Your task to perform on an android device: delete the emails in spam in the gmail app Image 0: 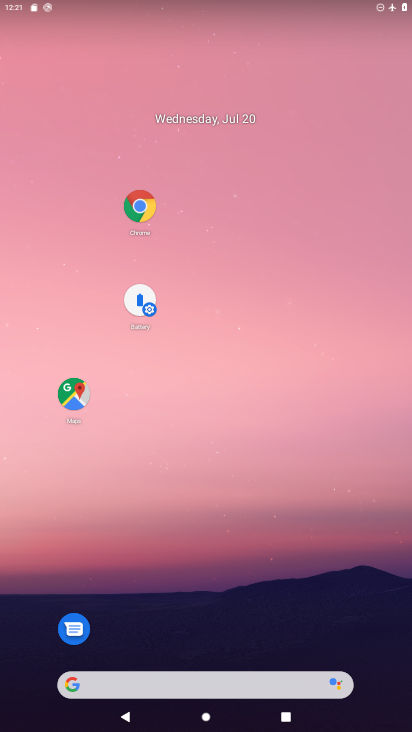
Step 0: drag from (225, 643) to (251, 144)
Your task to perform on an android device: delete the emails in spam in the gmail app Image 1: 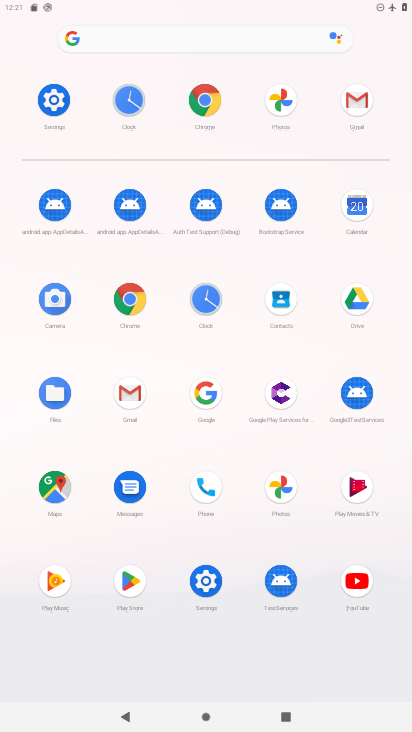
Step 1: click (137, 385)
Your task to perform on an android device: delete the emails in spam in the gmail app Image 2: 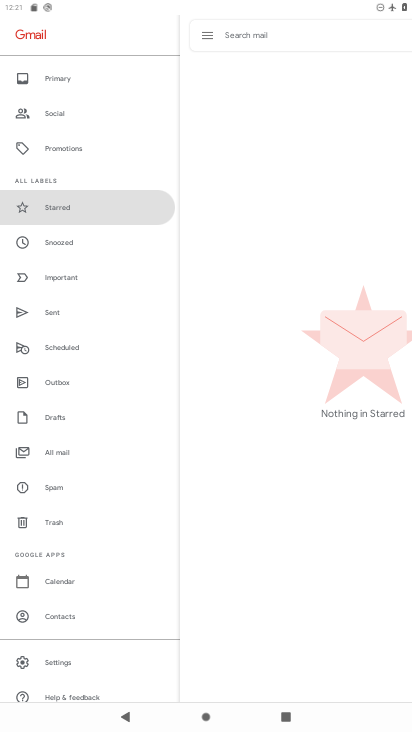
Step 2: click (51, 484)
Your task to perform on an android device: delete the emails in spam in the gmail app Image 3: 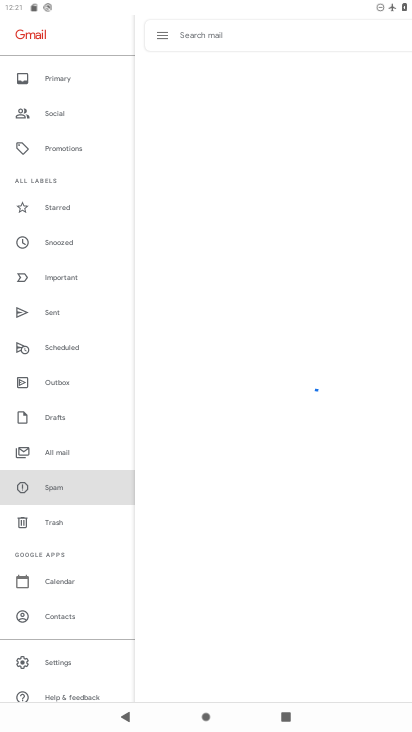
Step 3: task complete